Your task to perform on an android device: Open Maps and search for coffee Image 0: 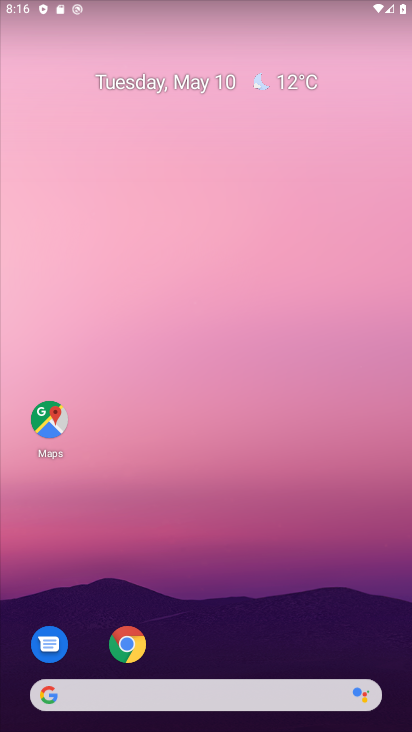
Step 0: click (52, 418)
Your task to perform on an android device: Open Maps and search for coffee Image 1: 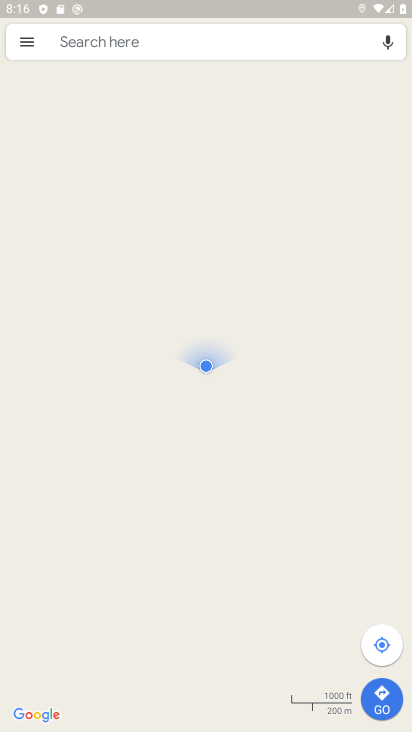
Step 1: click (109, 40)
Your task to perform on an android device: Open Maps and search for coffee Image 2: 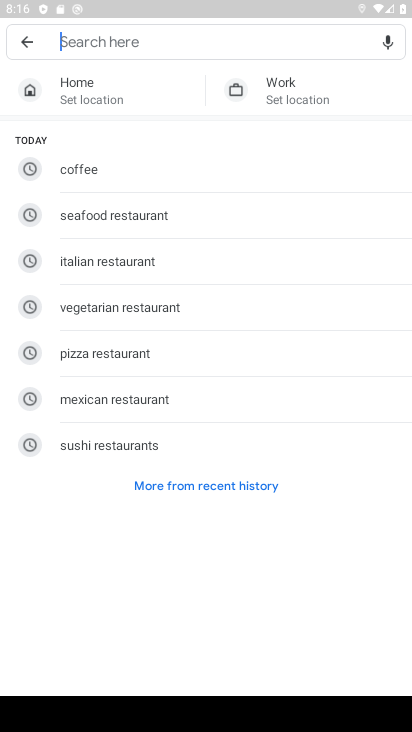
Step 2: type "coffee"
Your task to perform on an android device: Open Maps and search for coffee Image 3: 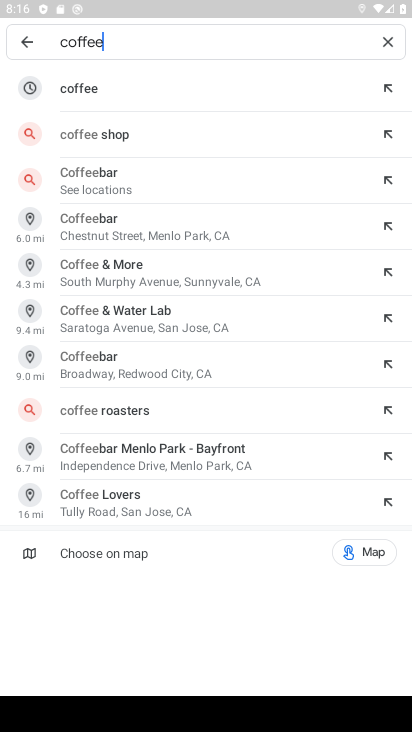
Step 3: click (92, 81)
Your task to perform on an android device: Open Maps and search for coffee Image 4: 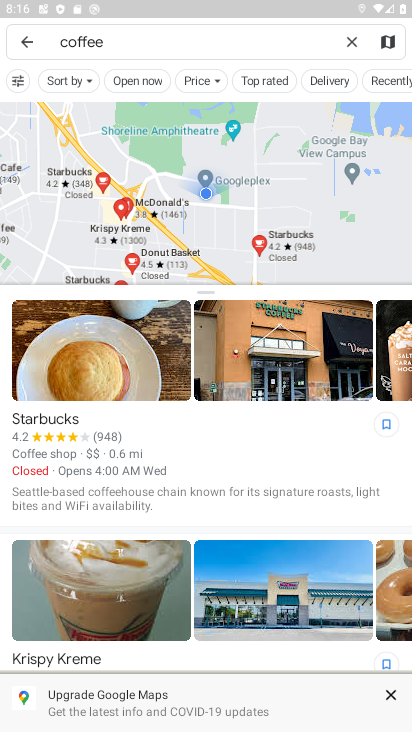
Step 4: task complete